Your task to perform on an android device: What's the weather going to be this weekend? Image 0: 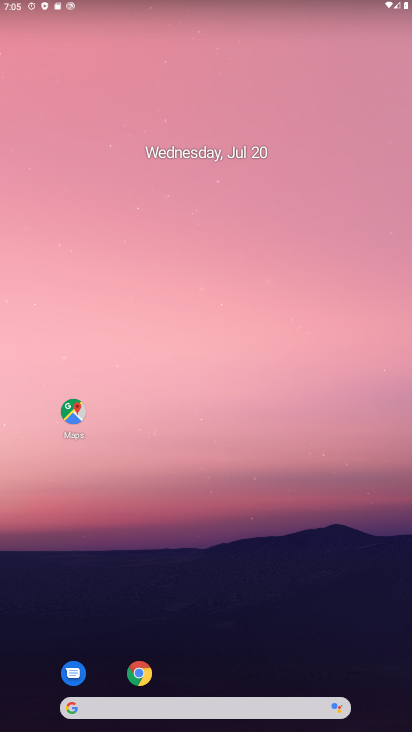
Step 0: drag from (370, 661) to (139, 47)
Your task to perform on an android device: What's the weather going to be this weekend? Image 1: 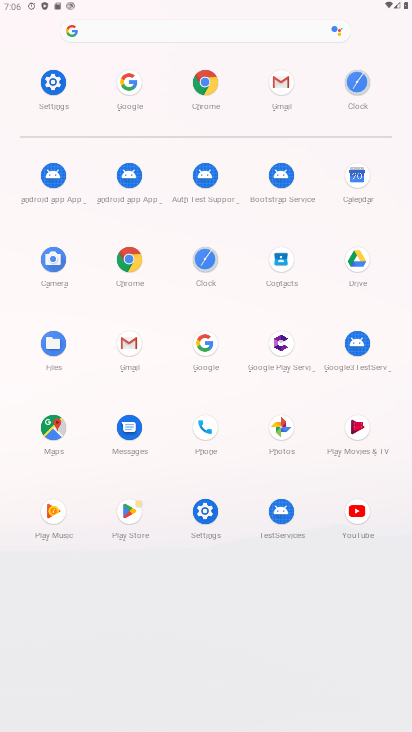
Step 1: click (211, 350)
Your task to perform on an android device: What's the weather going to be this weekend? Image 2: 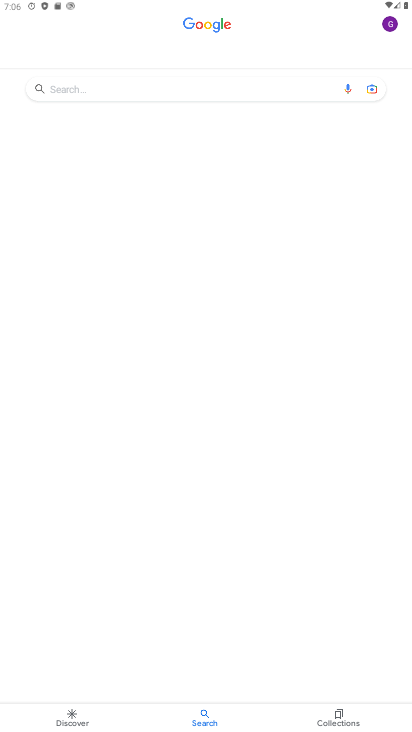
Step 2: click (143, 87)
Your task to perform on an android device: What's the weather going to be this weekend? Image 3: 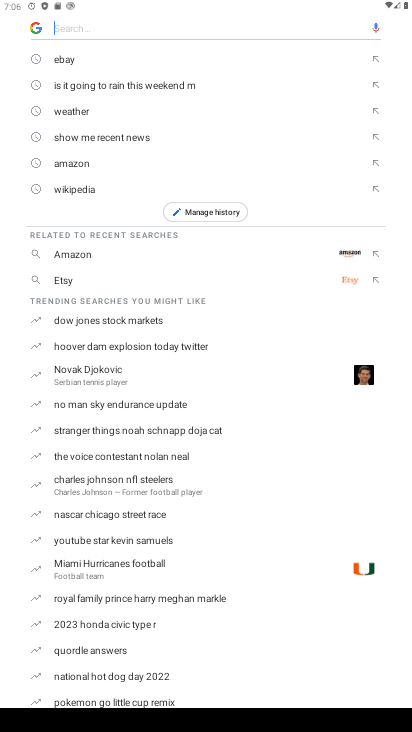
Step 3: type "What's the weather going to be this weekend?"
Your task to perform on an android device: What's the weather going to be this weekend? Image 4: 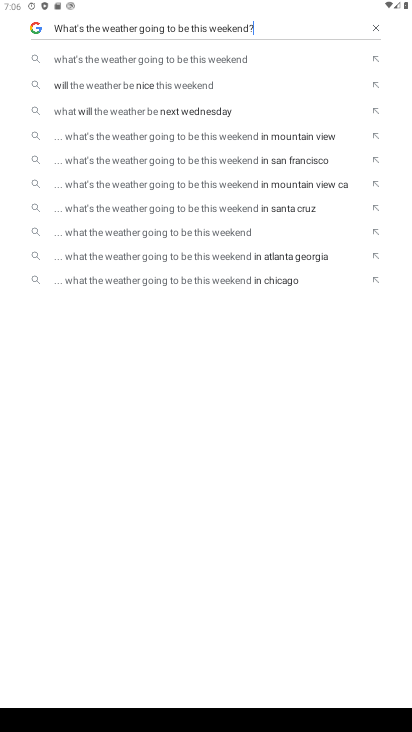
Step 4: click (119, 64)
Your task to perform on an android device: What's the weather going to be this weekend? Image 5: 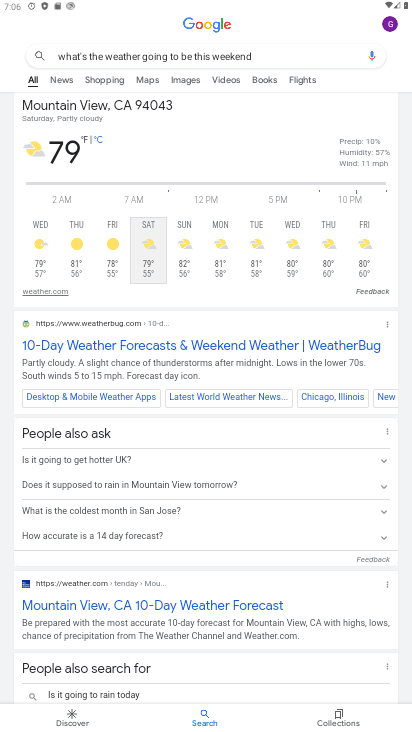
Step 5: task complete